Your task to perform on an android device: check google app version Image 0: 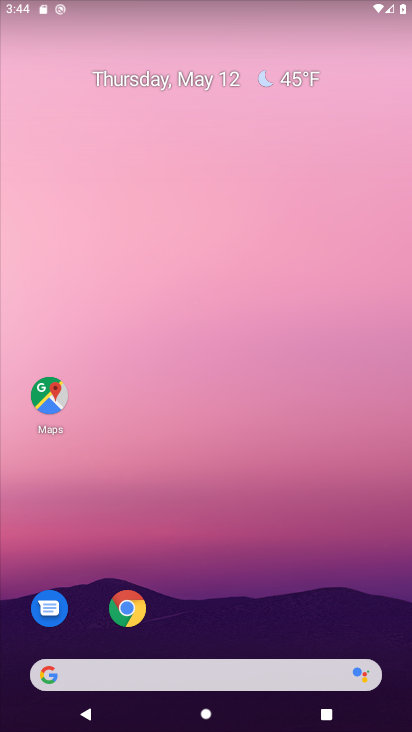
Step 0: drag from (268, 540) to (285, 67)
Your task to perform on an android device: check google app version Image 1: 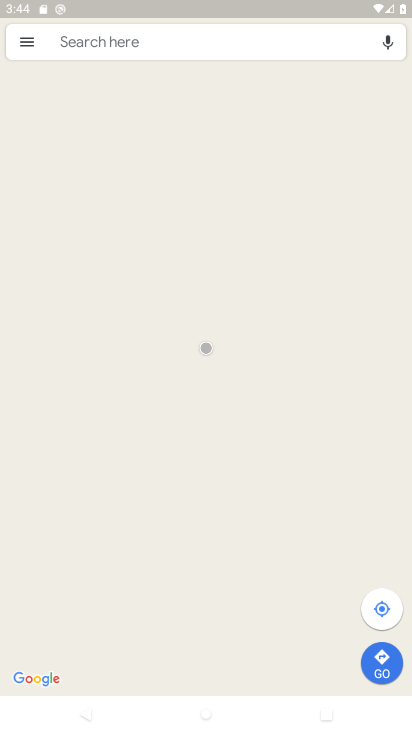
Step 1: press home button
Your task to perform on an android device: check google app version Image 2: 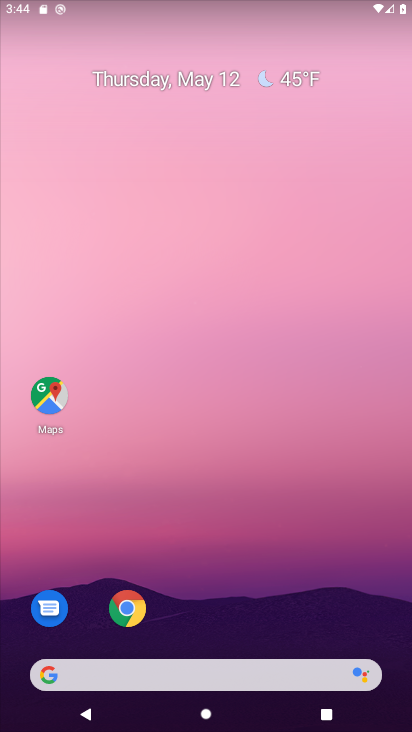
Step 2: drag from (244, 554) to (313, 46)
Your task to perform on an android device: check google app version Image 3: 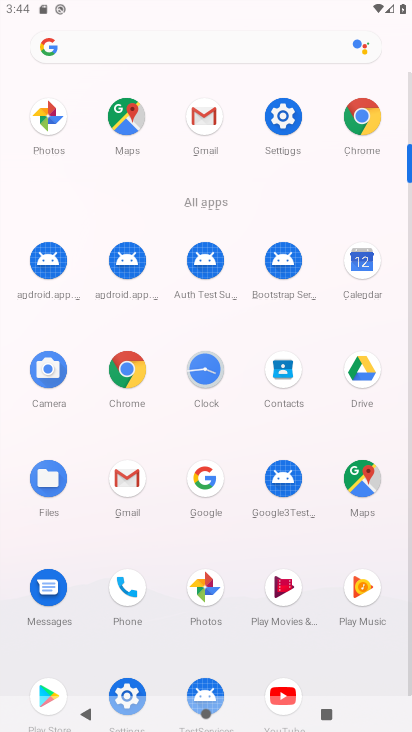
Step 3: click (207, 477)
Your task to perform on an android device: check google app version Image 4: 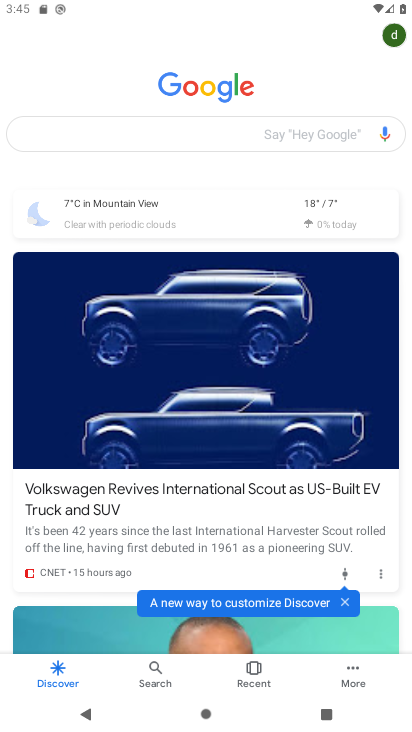
Step 4: click (348, 663)
Your task to perform on an android device: check google app version Image 5: 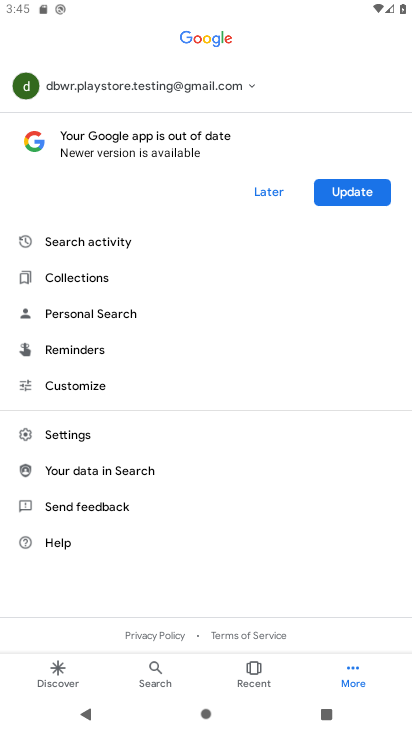
Step 5: click (123, 427)
Your task to perform on an android device: check google app version Image 6: 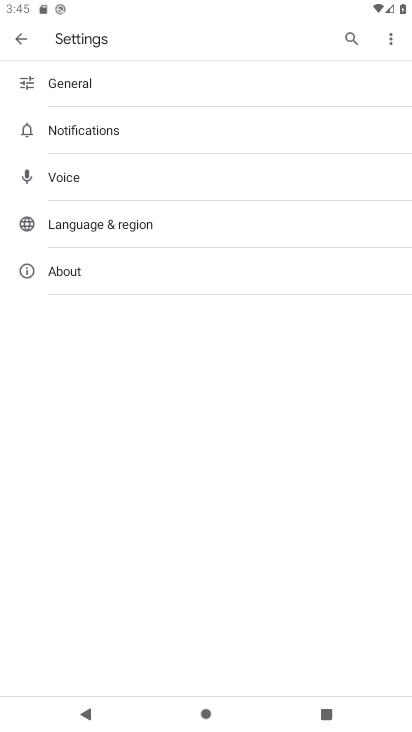
Step 6: click (61, 254)
Your task to perform on an android device: check google app version Image 7: 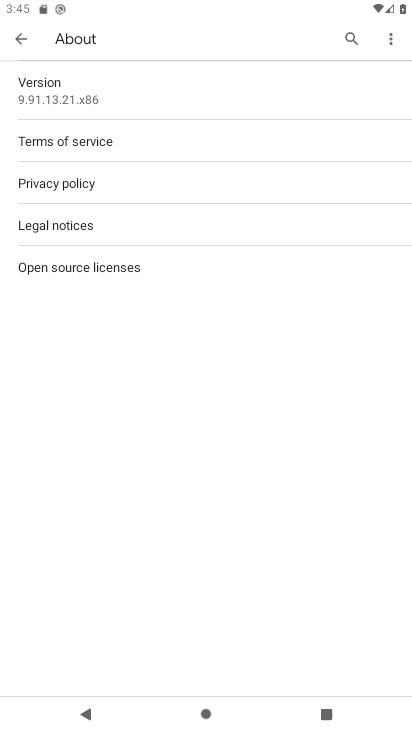
Step 7: task complete